Your task to perform on an android device: open app "Microsoft Outlook" (install if not already installed) and go to login screen Image 0: 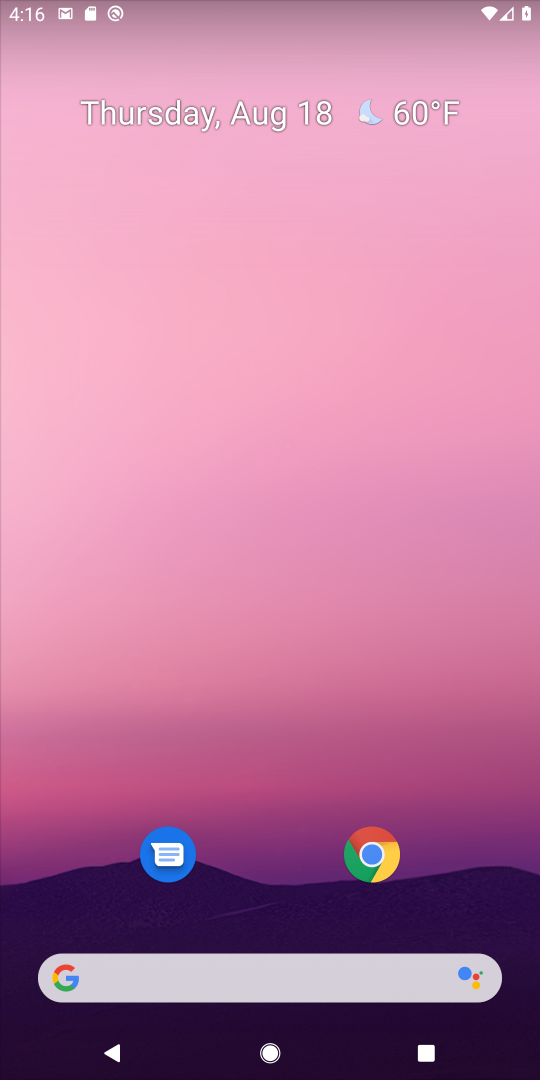
Step 0: click (248, 132)
Your task to perform on an android device: open app "Microsoft Outlook" (install if not already installed) and go to login screen Image 1: 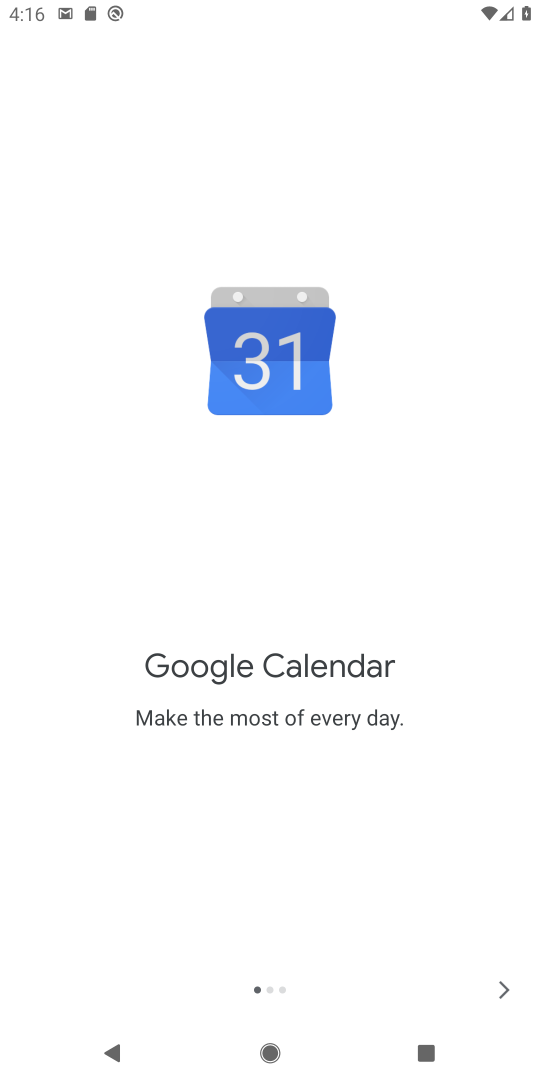
Step 1: press home button
Your task to perform on an android device: open app "Microsoft Outlook" (install if not already installed) and go to login screen Image 2: 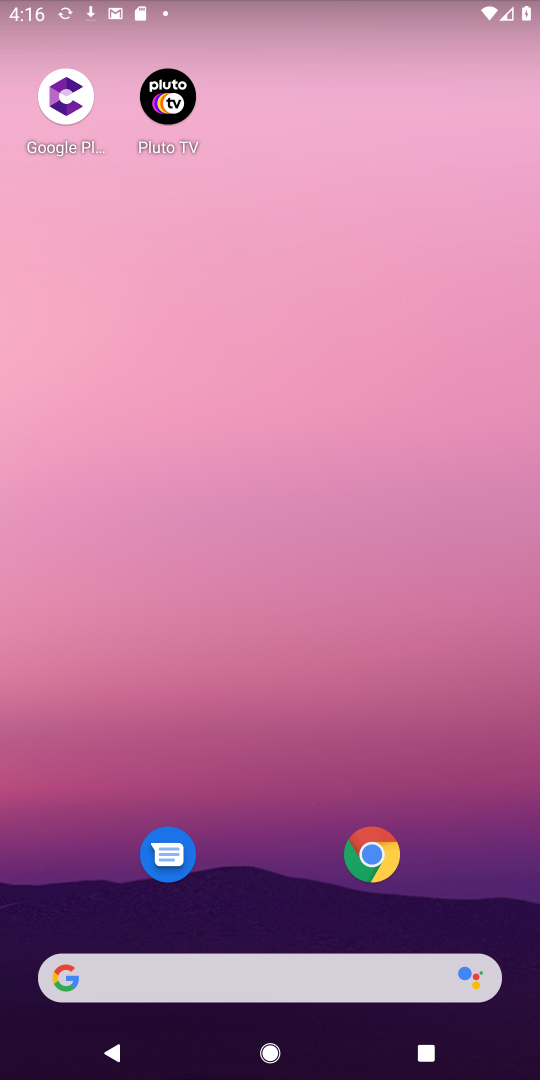
Step 2: drag from (260, 911) to (303, 210)
Your task to perform on an android device: open app "Microsoft Outlook" (install if not already installed) and go to login screen Image 3: 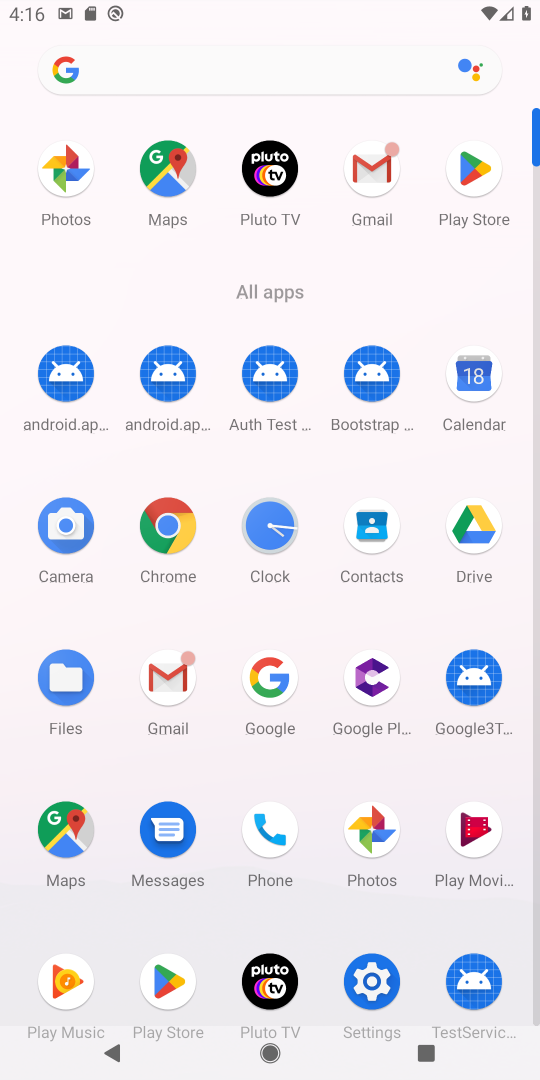
Step 3: click (483, 174)
Your task to perform on an android device: open app "Microsoft Outlook" (install if not already installed) and go to login screen Image 4: 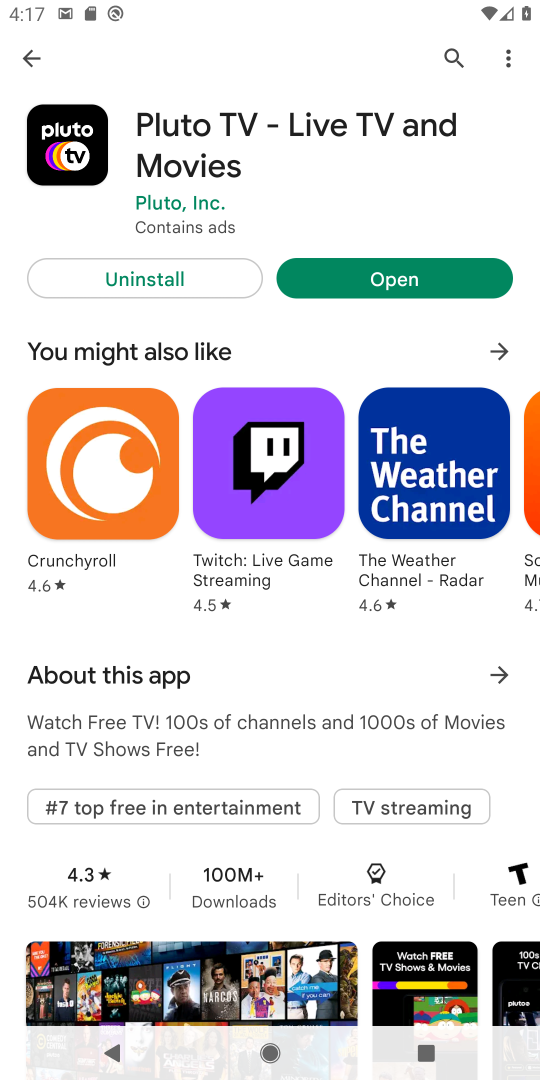
Step 4: click (32, 60)
Your task to perform on an android device: open app "Microsoft Outlook" (install if not already installed) and go to login screen Image 5: 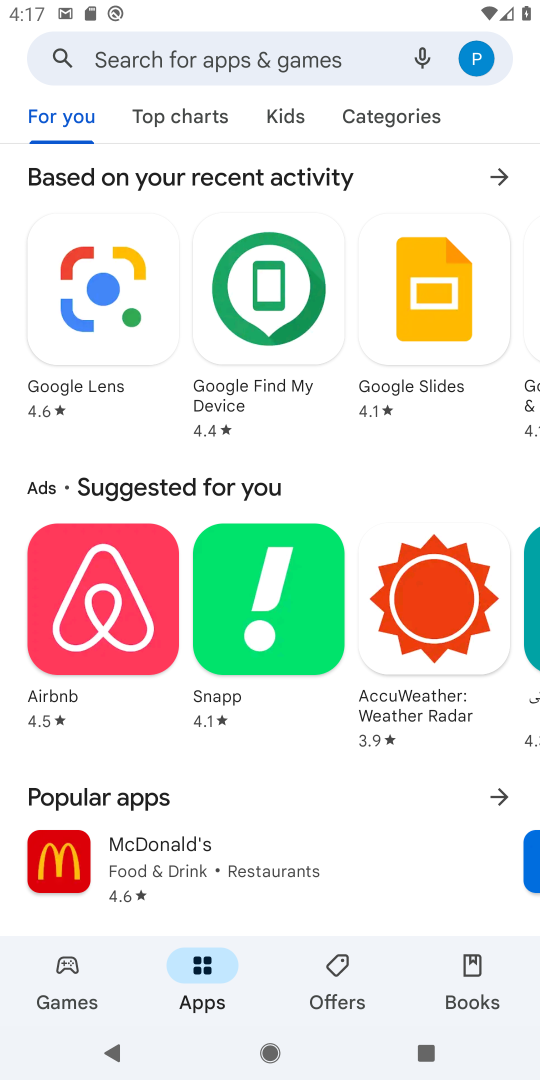
Step 5: click (222, 60)
Your task to perform on an android device: open app "Microsoft Outlook" (install if not already installed) and go to login screen Image 6: 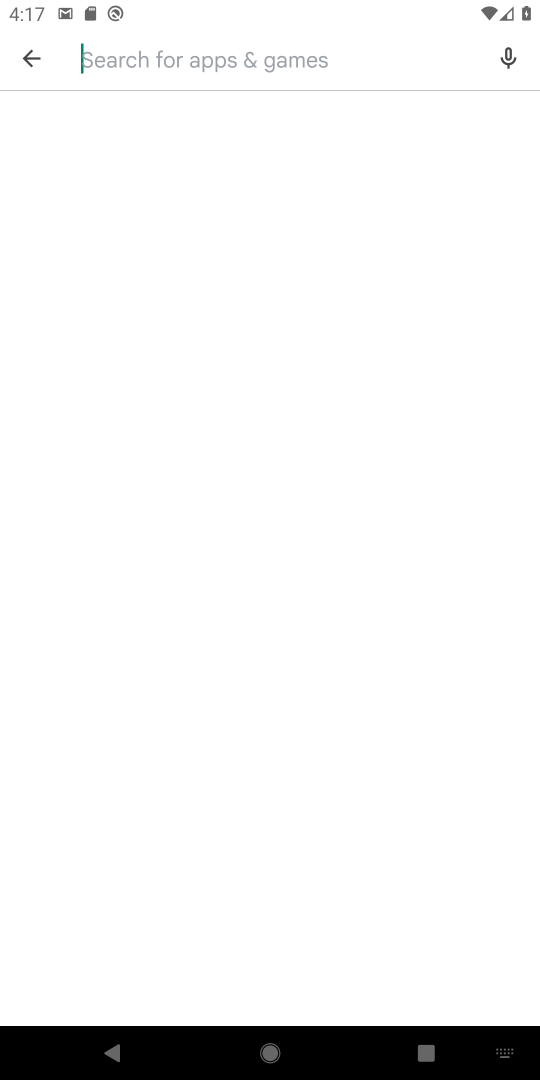
Step 6: type "Microsoft Outlook"
Your task to perform on an android device: open app "Microsoft Outlook" (install if not already installed) and go to login screen Image 7: 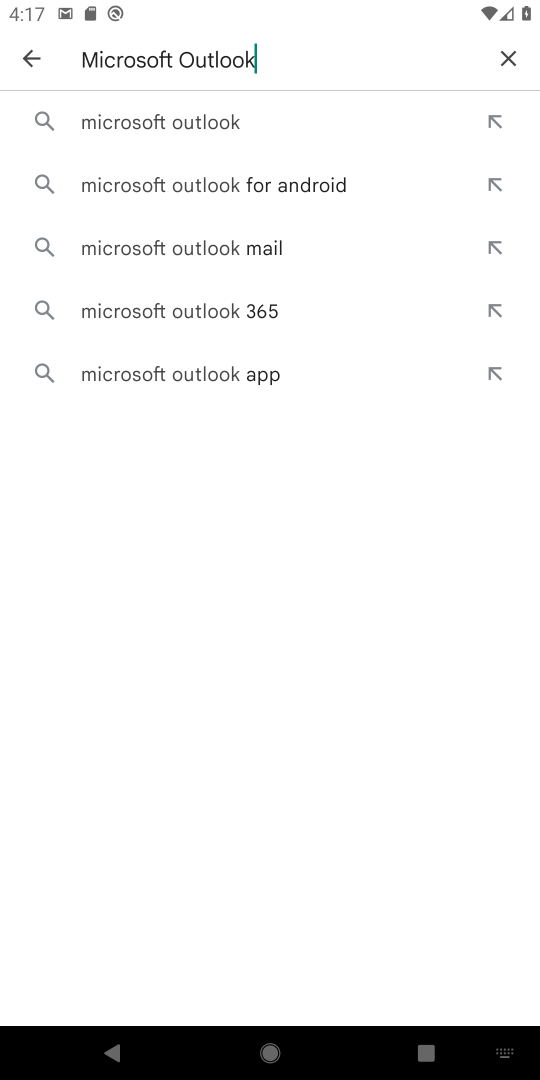
Step 7: click (159, 123)
Your task to perform on an android device: open app "Microsoft Outlook" (install if not already installed) and go to login screen Image 8: 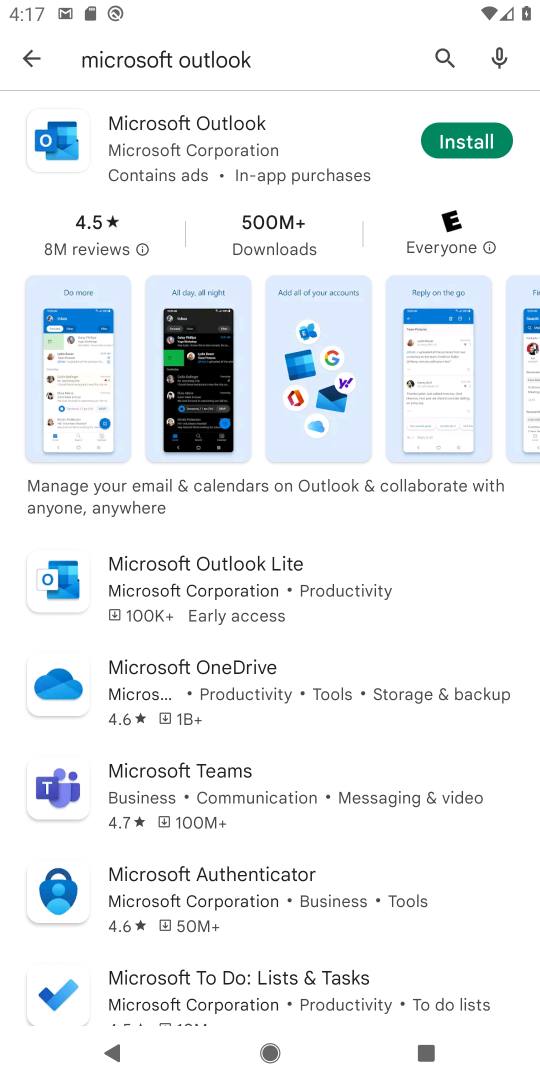
Step 8: click (444, 142)
Your task to perform on an android device: open app "Microsoft Outlook" (install if not already installed) and go to login screen Image 9: 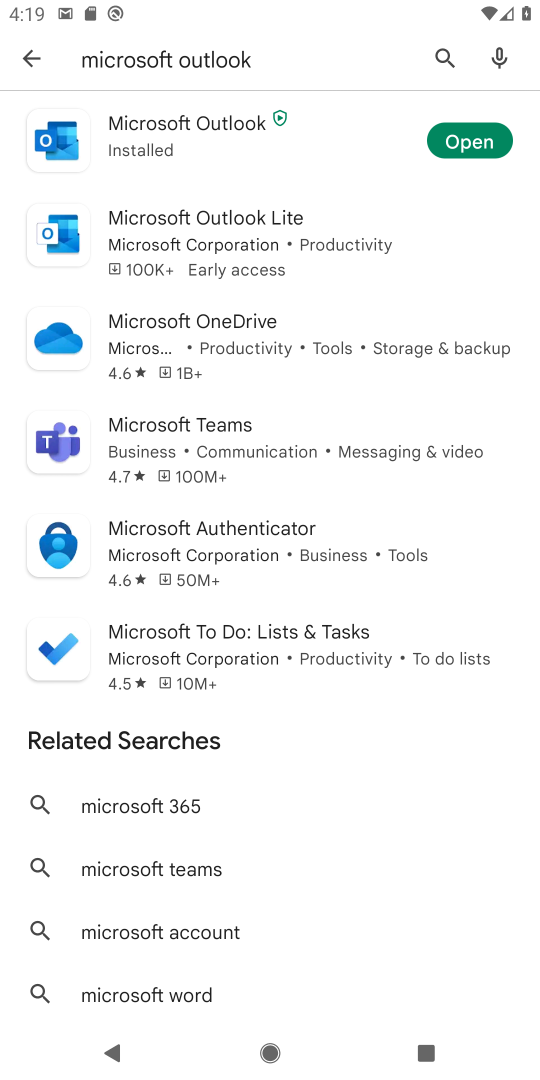
Step 9: click (464, 141)
Your task to perform on an android device: open app "Microsoft Outlook" (install if not already installed) and go to login screen Image 10: 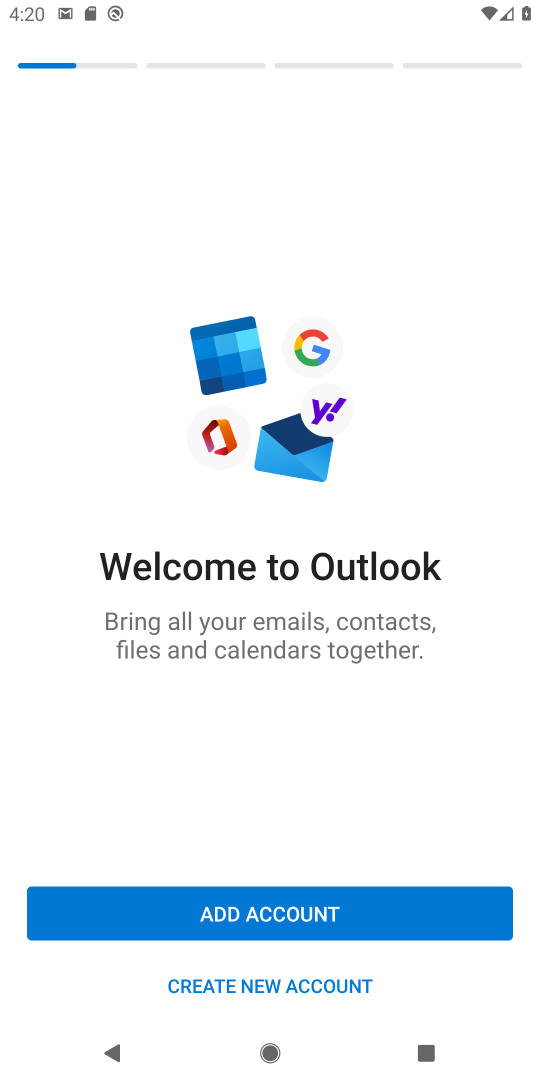
Step 10: task complete